Your task to perform on an android device: Go to notification settings Image 0: 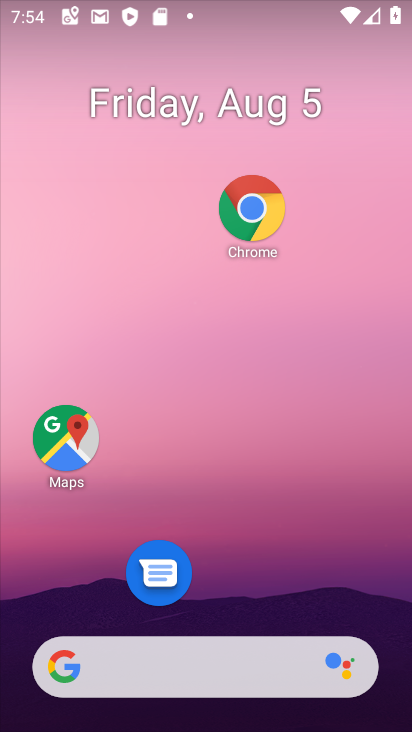
Step 0: drag from (361, 554) to (244, 46)
Your task to perform on an android device: Go to notification settings Image 1: 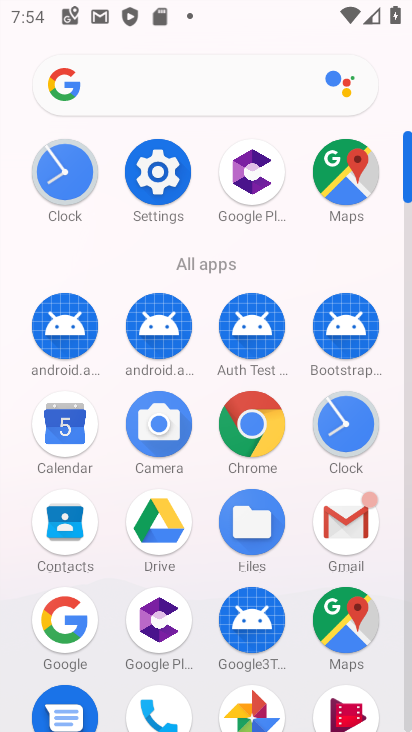
Step 1: click (151, 178)
Your task to perform on an android device: Go to notification settings Image 2: 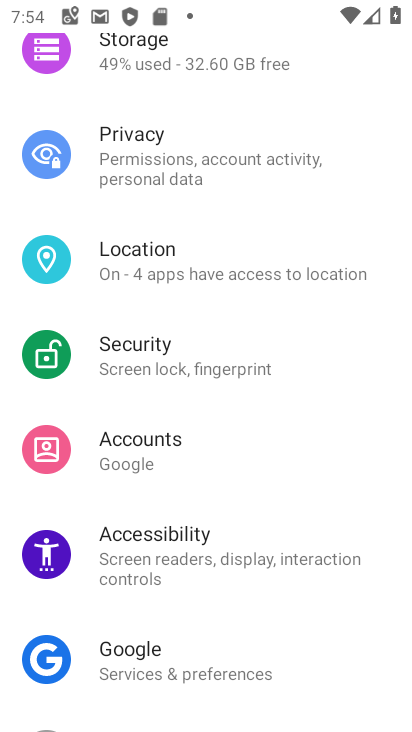
Step 2: drag from (180, 254) to (246, 603)
Your task to perform on an android device: Go to notification settings Image 3: 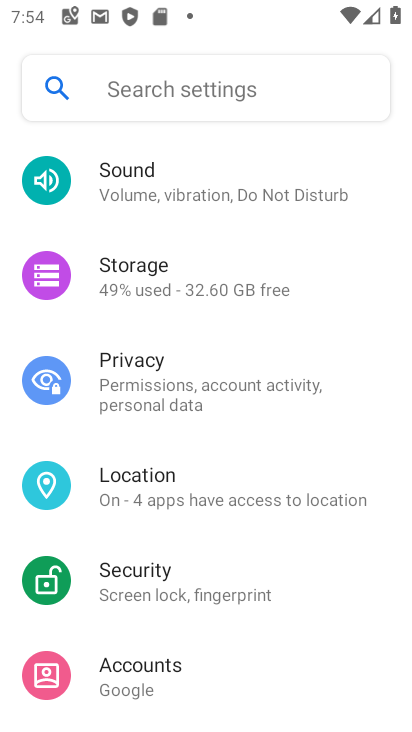
Step 3: drag from (202, 259) to (228, 677)
Your task to perform on an android device: Go to notification settings Image 4: 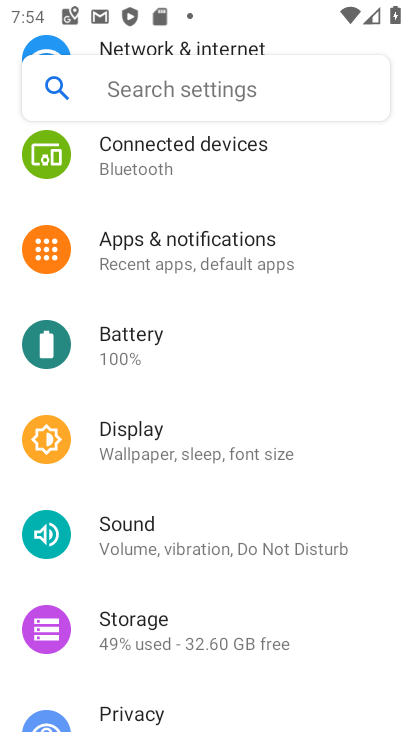
Step 4: click (200, 275)
Your task to perform on an android device: Go to notification settings Image 5: 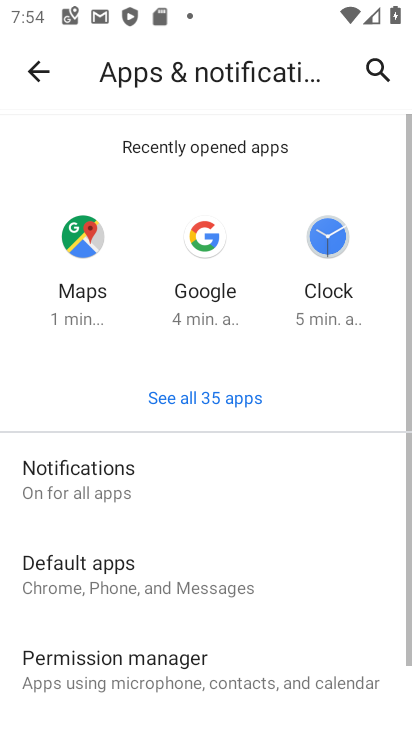
Step 5: click (104, 491)
Your task to perform on an android device: Go to notification settings Image 6: 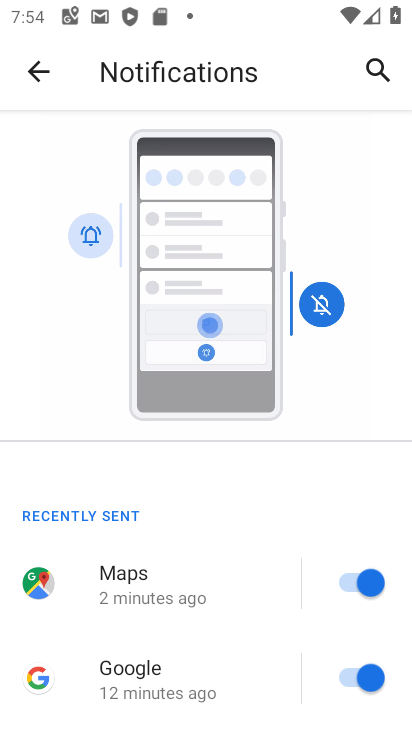
Step 6: task complete